Your task to perform on an android device: turn off translation in the chrome app Image 0: 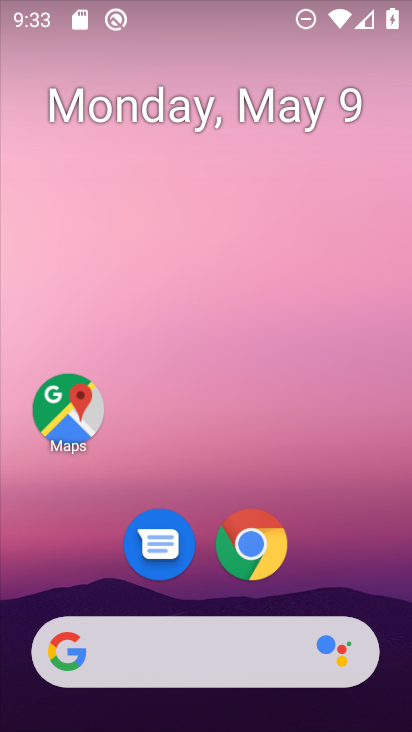
Step 0: click (250, 557)
Your task to perform on an android device: turn off translation in the chrome app Image 1: 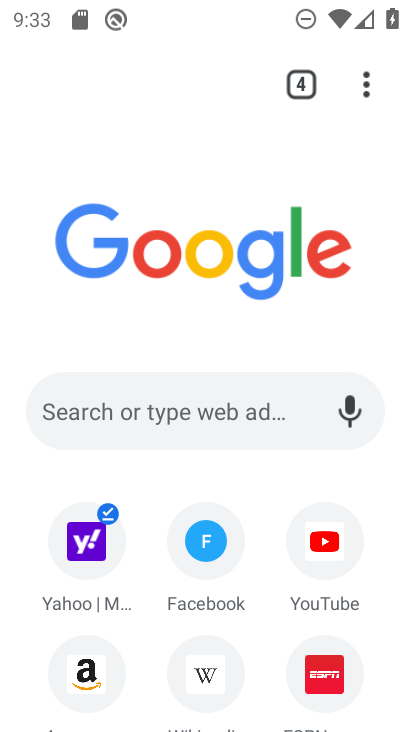
Step 1: click (365, 83)
Your task to perform on an android device: turn off translation in the chrome app Image 2: 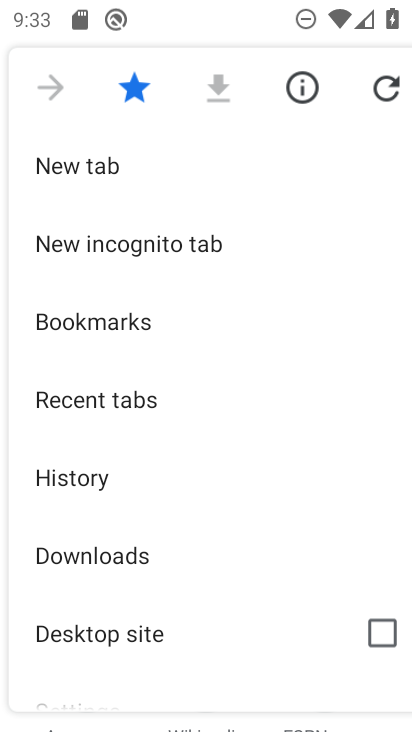
Step 2: drag from (236, 520) to (198, 241)
Your task to perform on an android device: turn off translation in the chrome app Image 3: 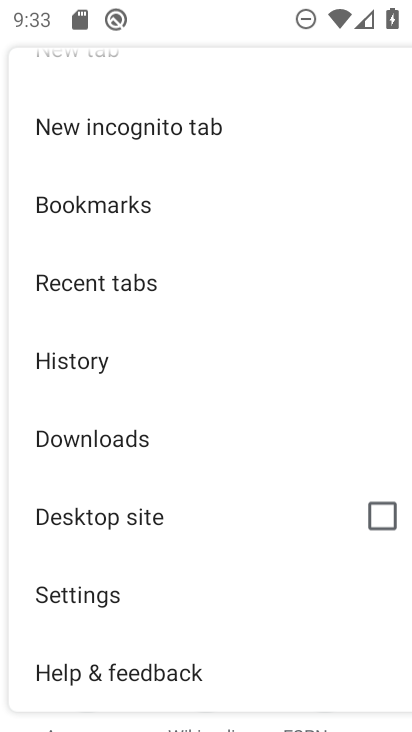
Step 3: click (102, 595)
Your task to perform on an android device: turn off translation in the chrome app Image 4: 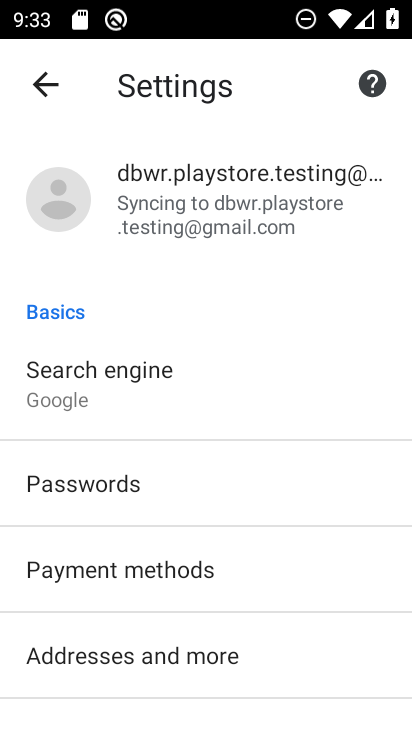
Step 4: drag from (262, 553) to (155, 213)
Your task to perform on an android device: turn off translation in the chrome app Image 5: 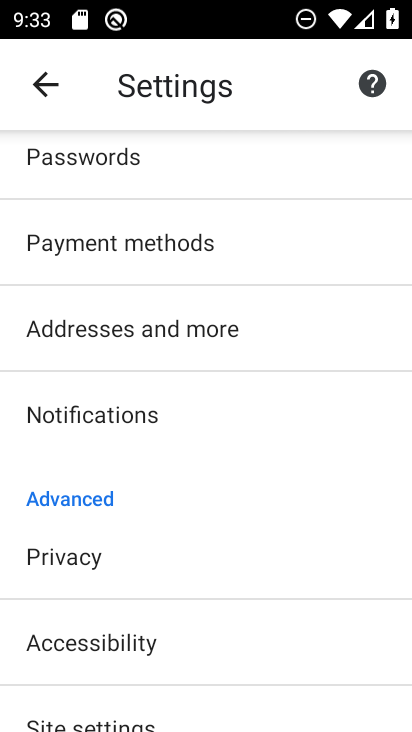
Step 5: drag from (167, 570) to (167, 234)
Your task to perform on an android device: turn off translation in the chrome app Image 6: 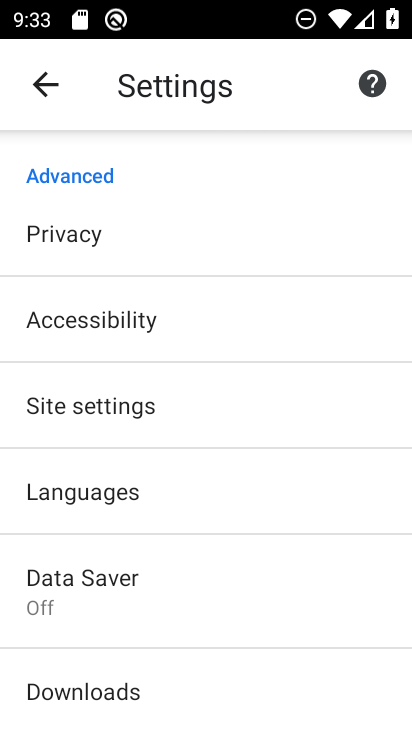
Step 6: click (118, 488)
Your task to perform on an android device: turn off translation in the chrome app Image 7: 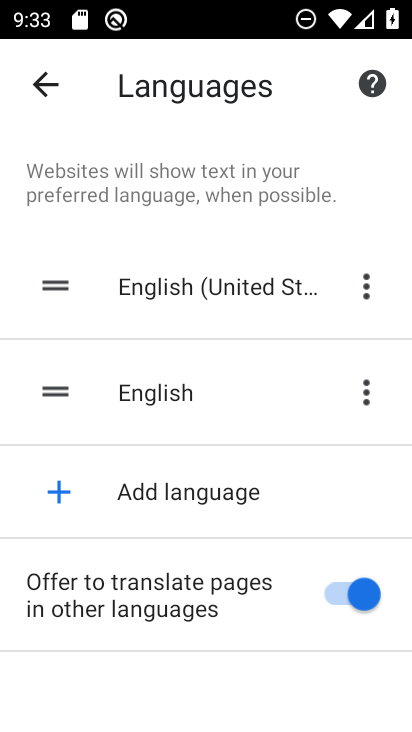
Step 7: click (367, 582)
Your task to perform on an android device: turn off translation in the chrome app Image 8: 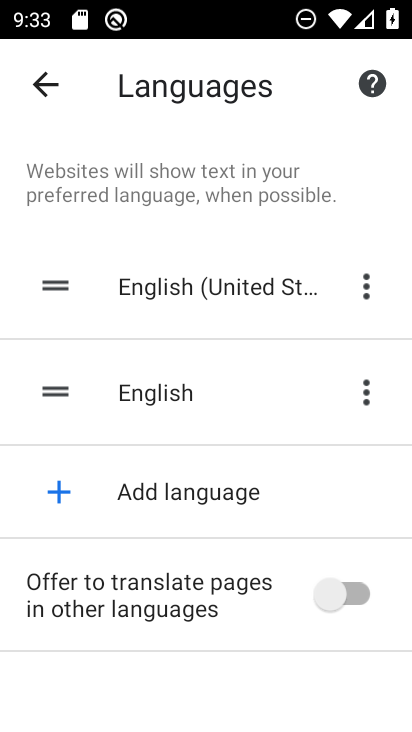
Step 8: task complete